Your task to perform on an android device: delete the emails in spam in the gmail app Image 0: 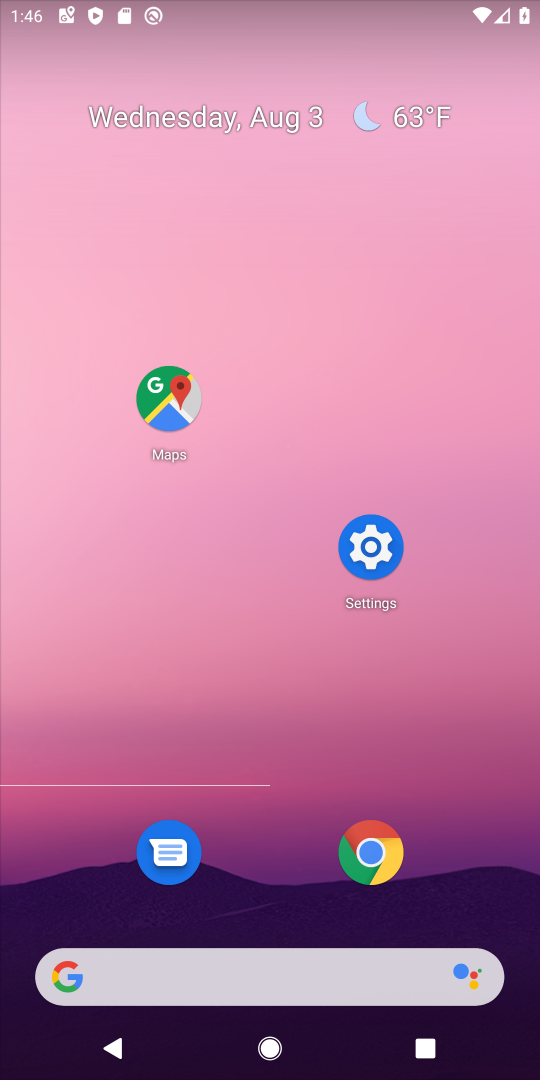
Step 0: press home button
Your task to perform on an android device: delete the emails in spam in the gmail app Image 1: 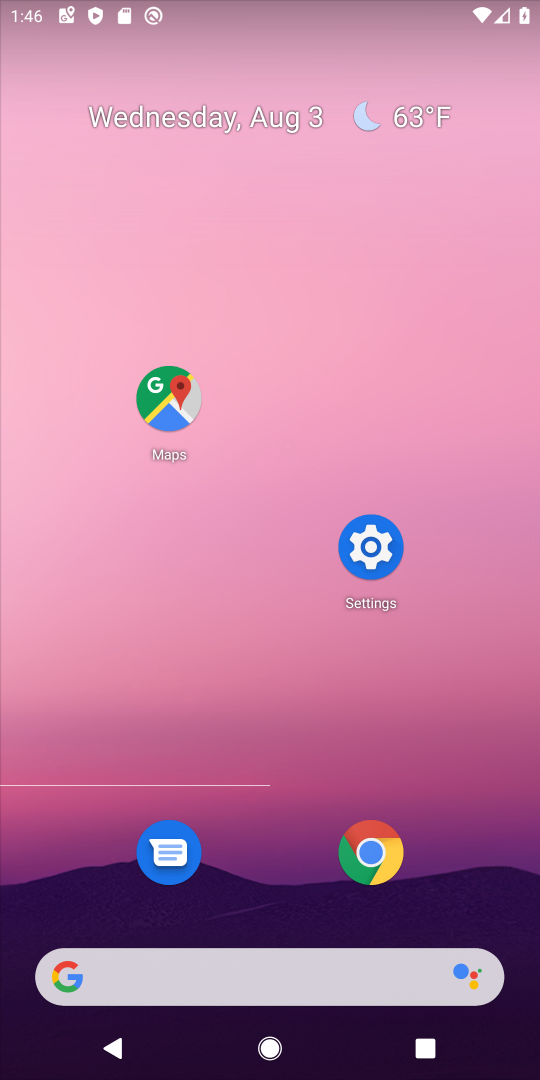
Step 1: drag from (234, 980) to (330, 184)
Your task to perform on an android device: delete the emails in spam in the gmail app Image 2: 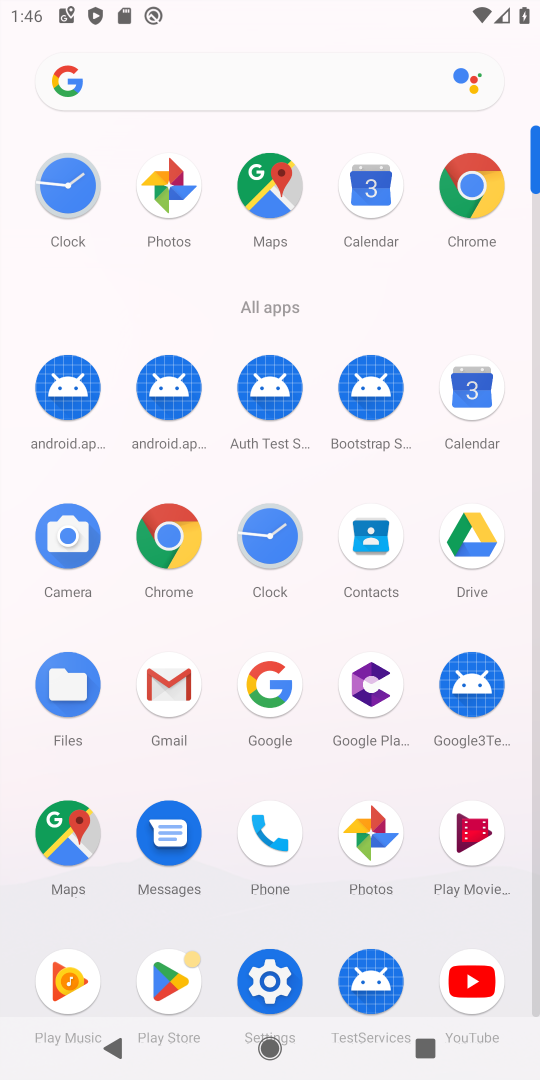
Step 2: click (179, 669)
Your task to perform on an android device: delete the emails in spam in the gmail app Image 3: 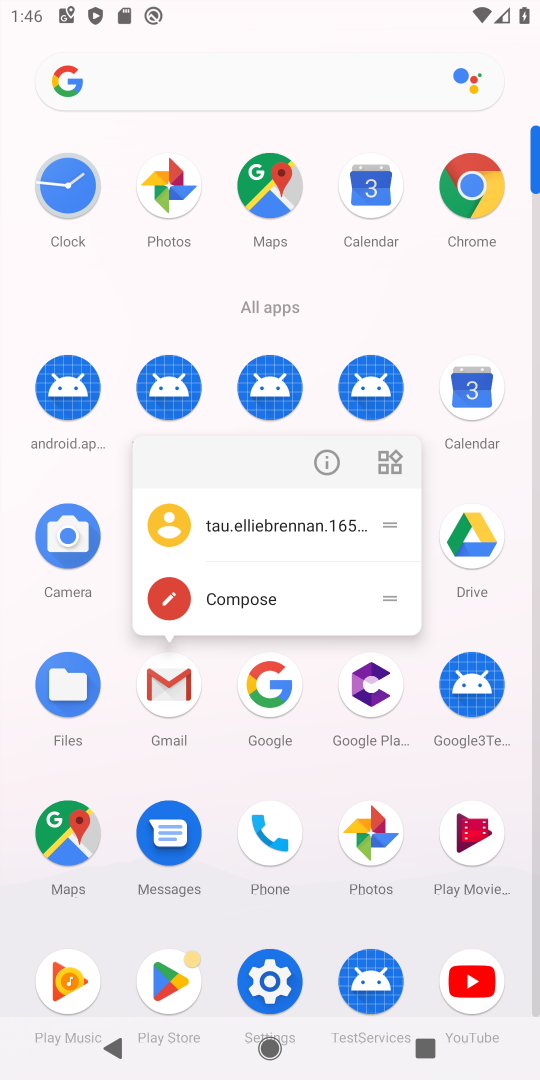
Step 3: click (170, 688)
Your task to perform on an android device: delete the emails in spam in the gmail app Image 4: 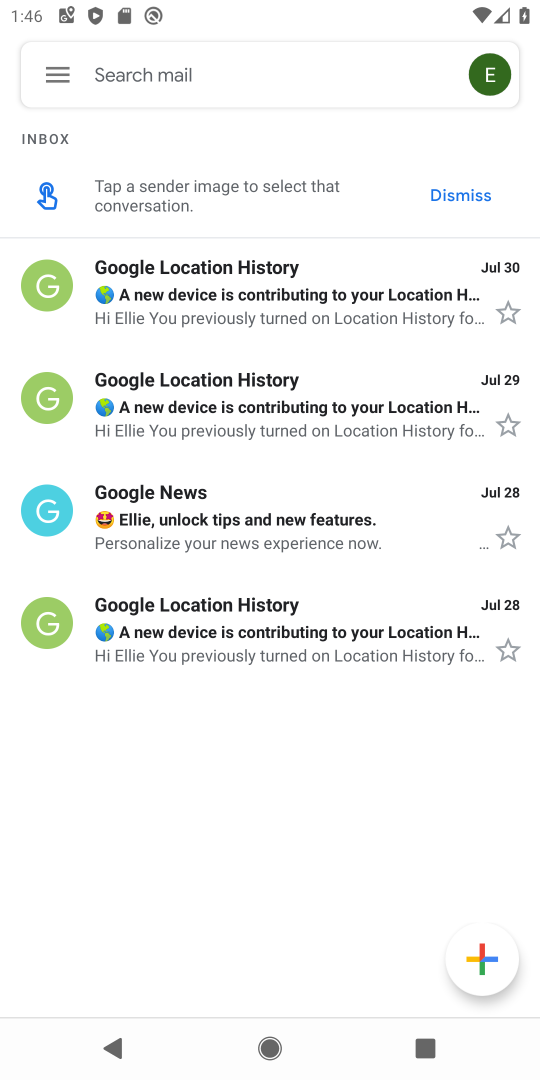
Step 4: click (57, 68)
Your task to perform on an android device: delete the emails in spam in the gmail app Image 5: 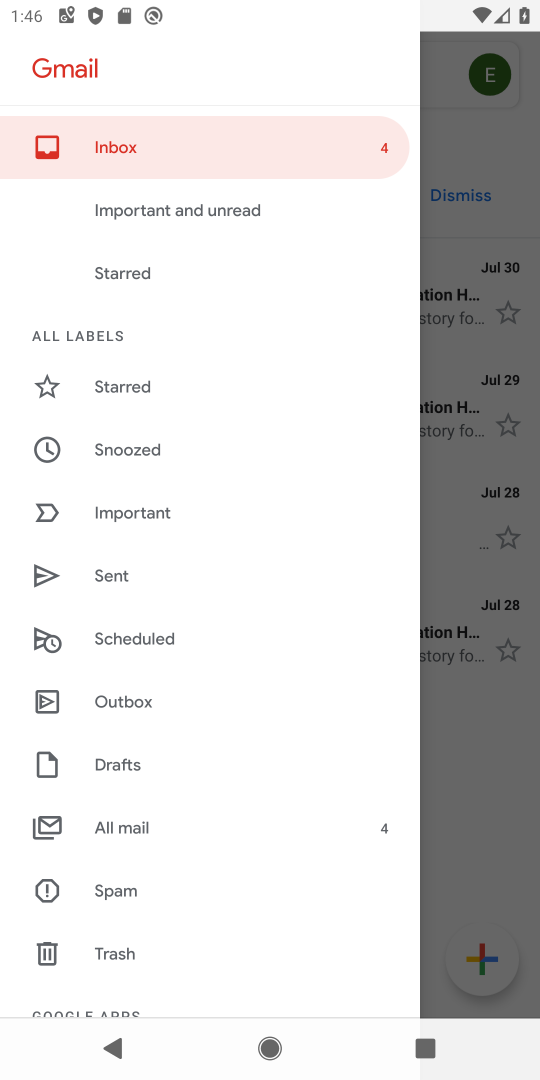
Step 5: click (124, 891)
Your task to perform on an android device: delete the emails in spam in the gmail app Image 6: 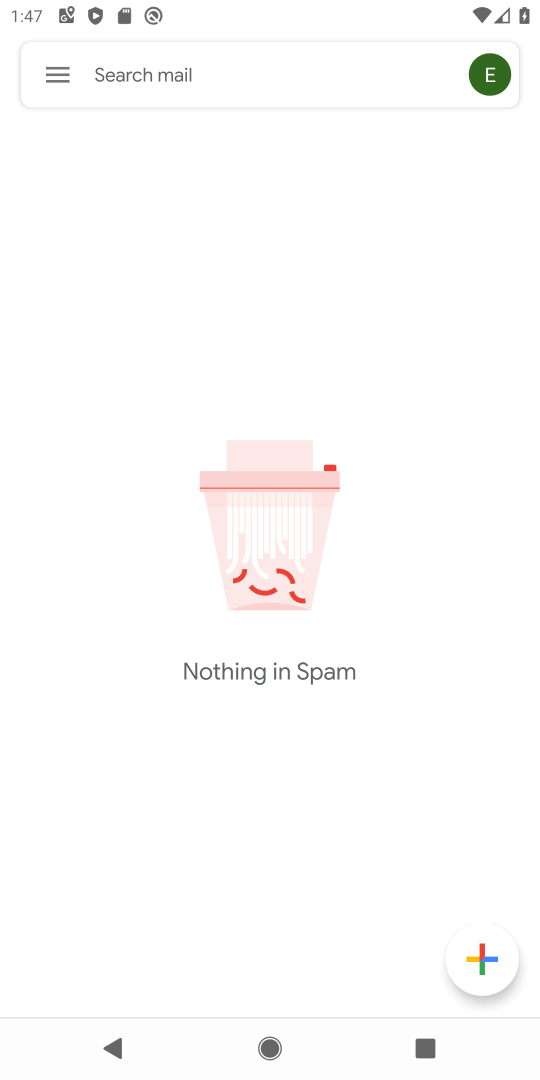
Step 6: task complete